Your task to perform on an android device: What's on my calendar tomorrow? Image 0: 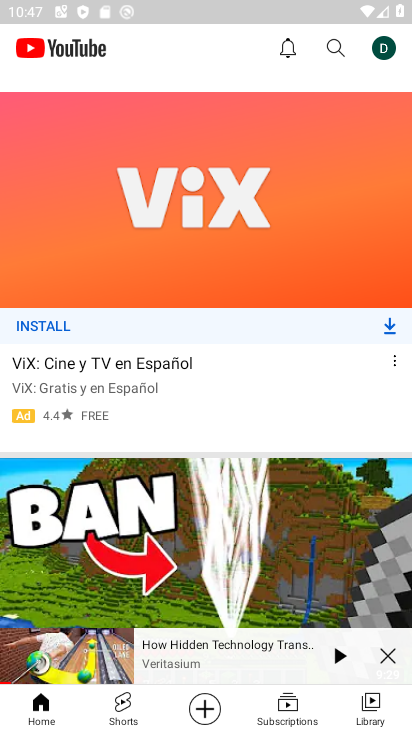
Step 0: press home button
Your task to perform on an android device: What's on my calendar tomorrow? Image 1: 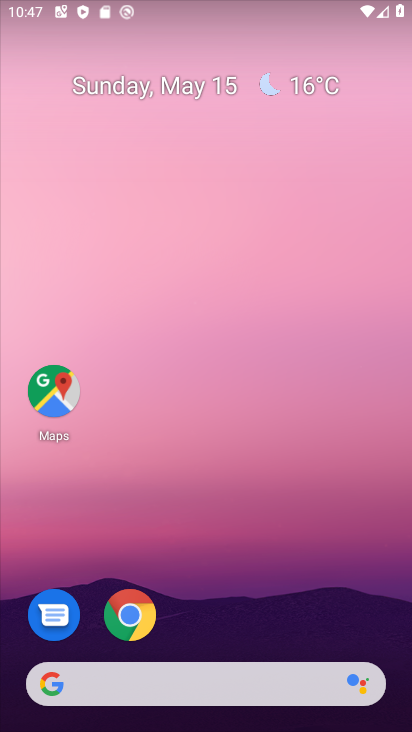
Step 1: drag from (321, 595) to (300, 13)
Your task to perform on an android device: What's on my calendar tomorrow? Image 2: 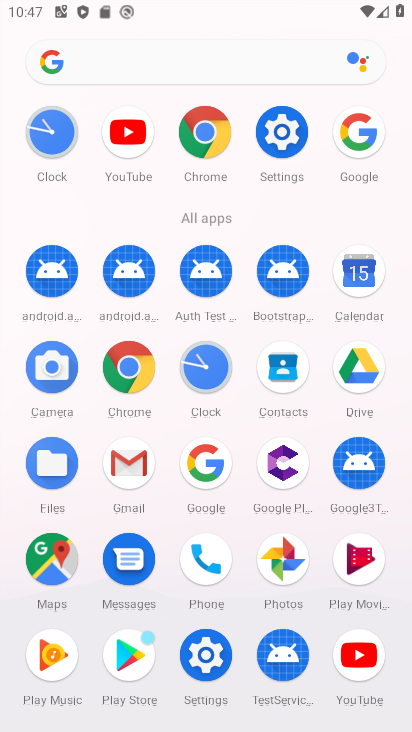
Step 2: click (361, 278)
Your task to perform on an android device: What's on my calendar tomorrow? Image 3: 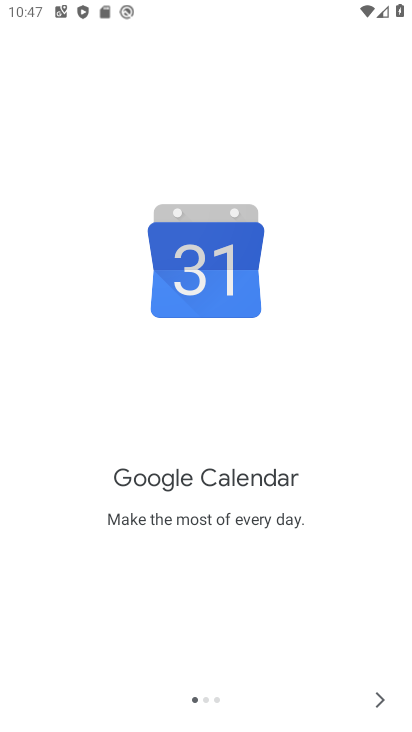
Step 3: click (383, 706)
Your task to perform on an android device: What's on my calendar tomorrow? Image 4: 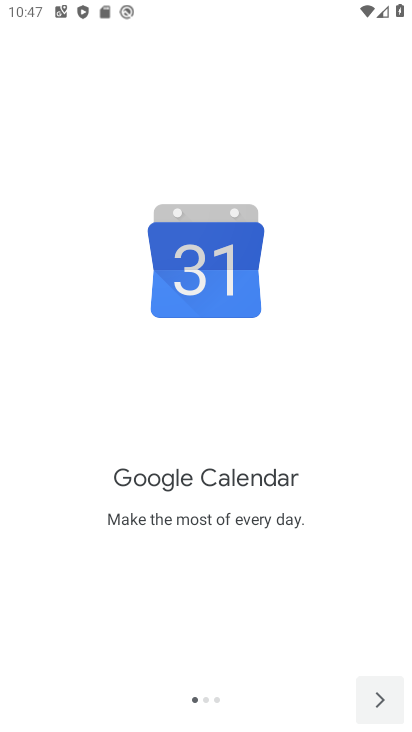
Step 4: click (383, 706)
Your task to perform on an android device: What's on my calendar tomorrow? Image 5: 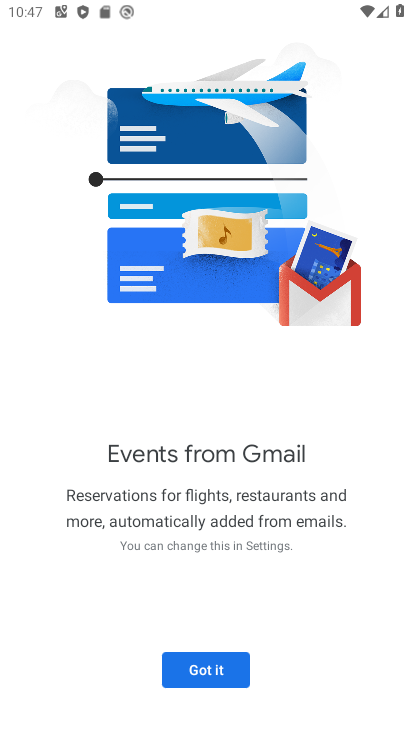
Step 5: click (384, 699)
Your task to perform on an android device: What's on my calendar tomorrow? Image 6: 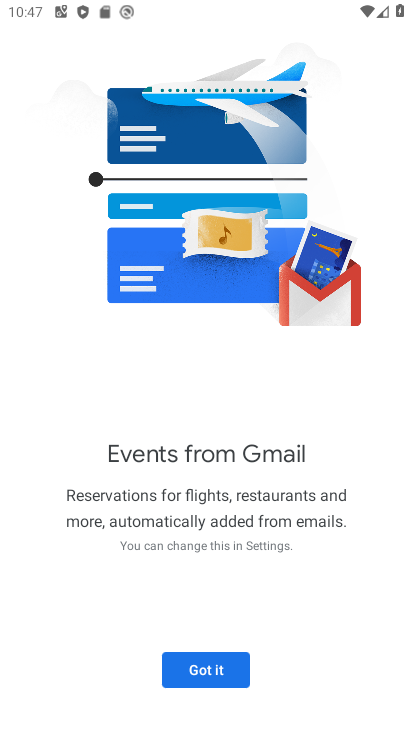
Step 6: click (234, 665)
Your task to perform on an android device: What's on my calendar tomorrow? Image 7: 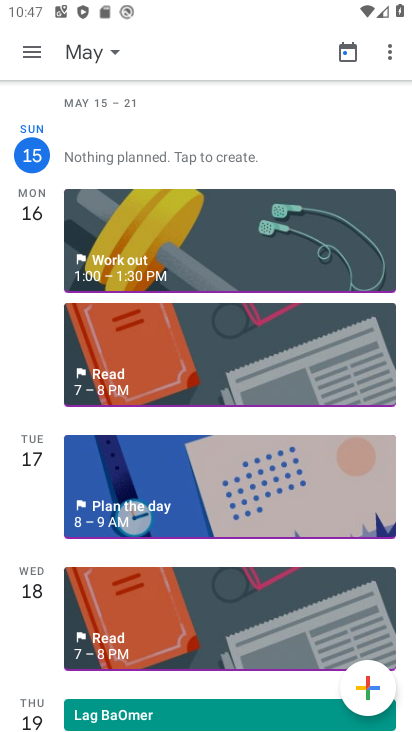
Step 7: click (104, 49)
Your task to perform on an android device: What's on my calendar tomorrow? Image 8: 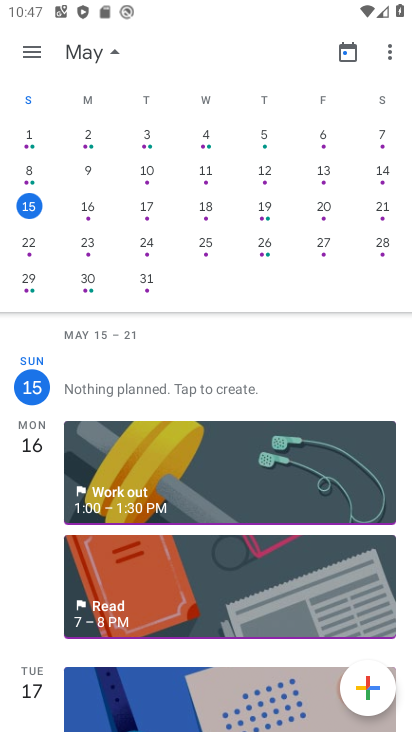
Step 8: click (149, 204)
Your task to perform on an android device: What's on my calendar tomorrow? Image 9: 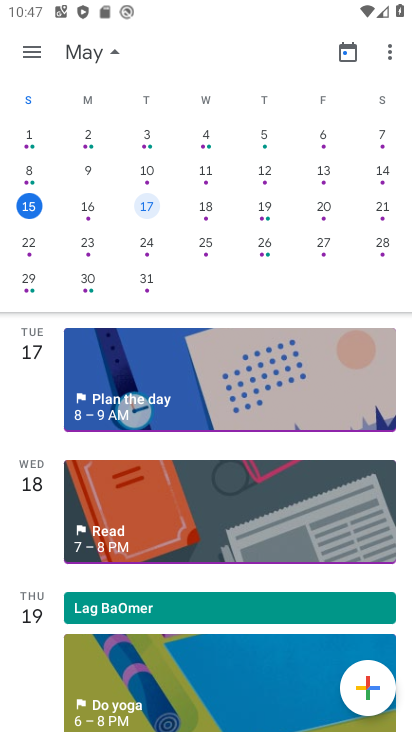
Step 9: task complete